Your task to perform on an android device: open the mobile data screen to see how much data has been used Image 0: 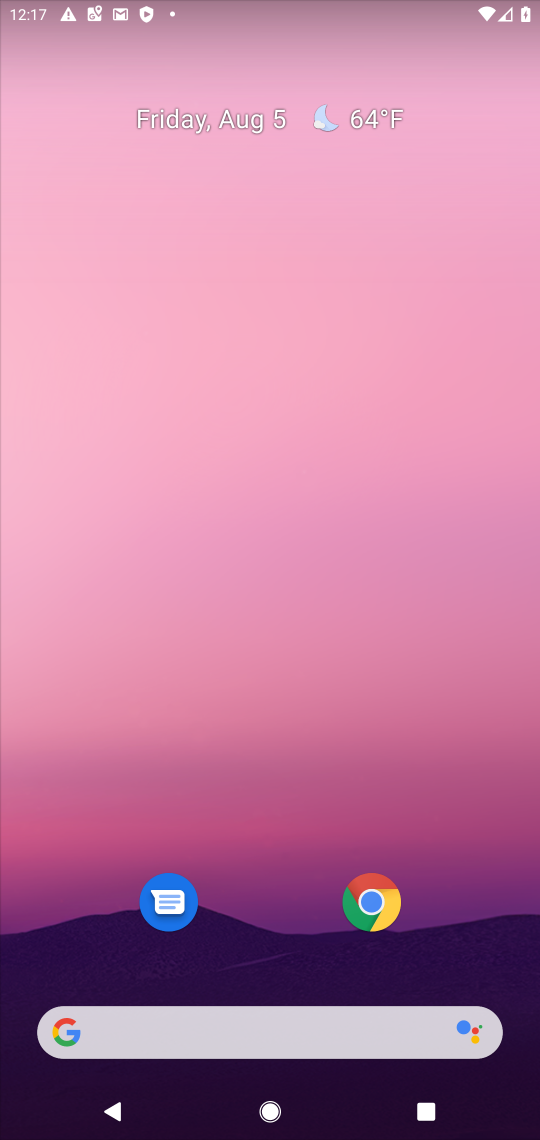
Step 0: drag from (280, 881) to (291, 259)
Your task to perform on an android device: open the mobile data screen to see how much data has been used Image 1: 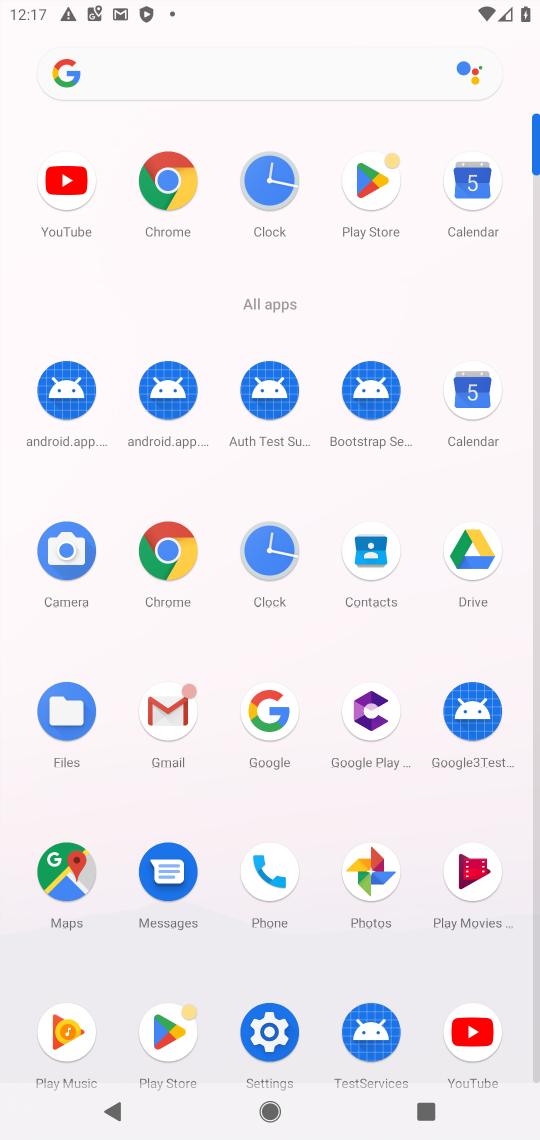
Step 1: click (263, 1031)
Your task to perform on an android device: open the mobile data screen to see how much data has been used Image 2: 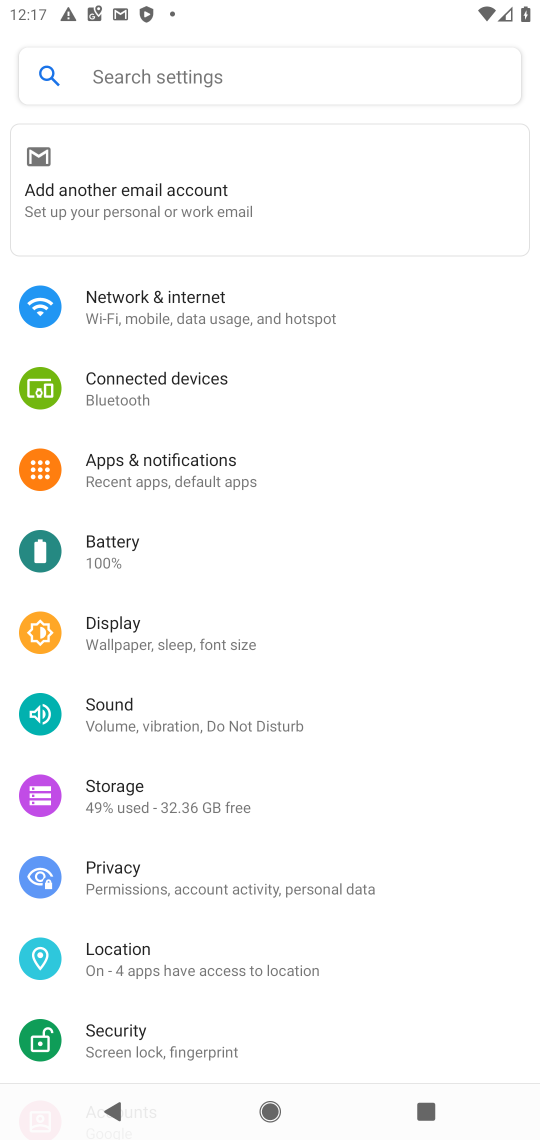
Step 2: click (224, 301)
Your task to perform on an android device: open the mobile data screen to see how much data has been used Image 3: 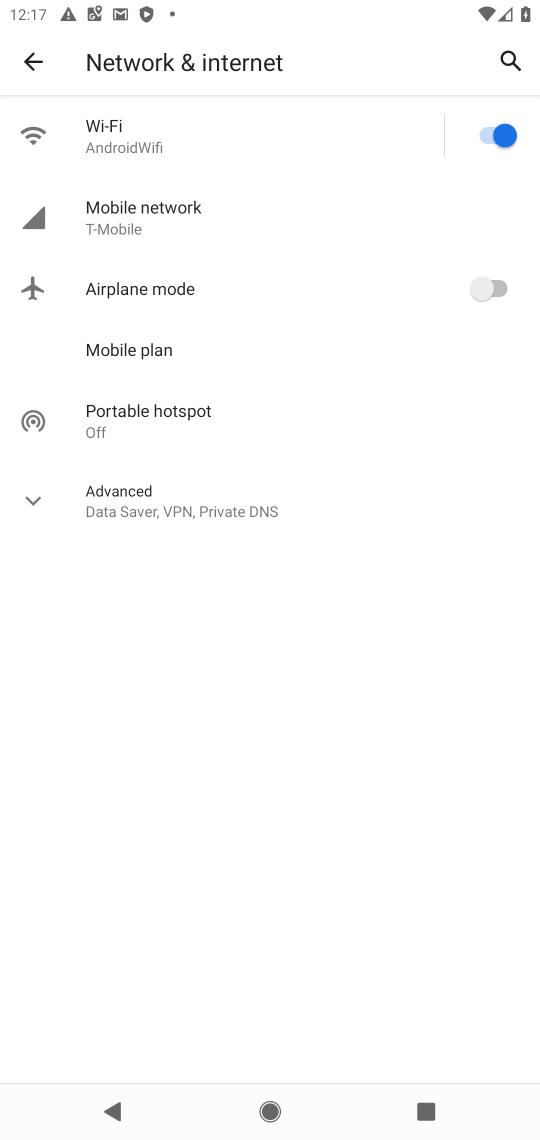
Step 3: click (201, 214)
Your task to perform on an android device: open the mobile data screen to see how much data has been used Image 4: 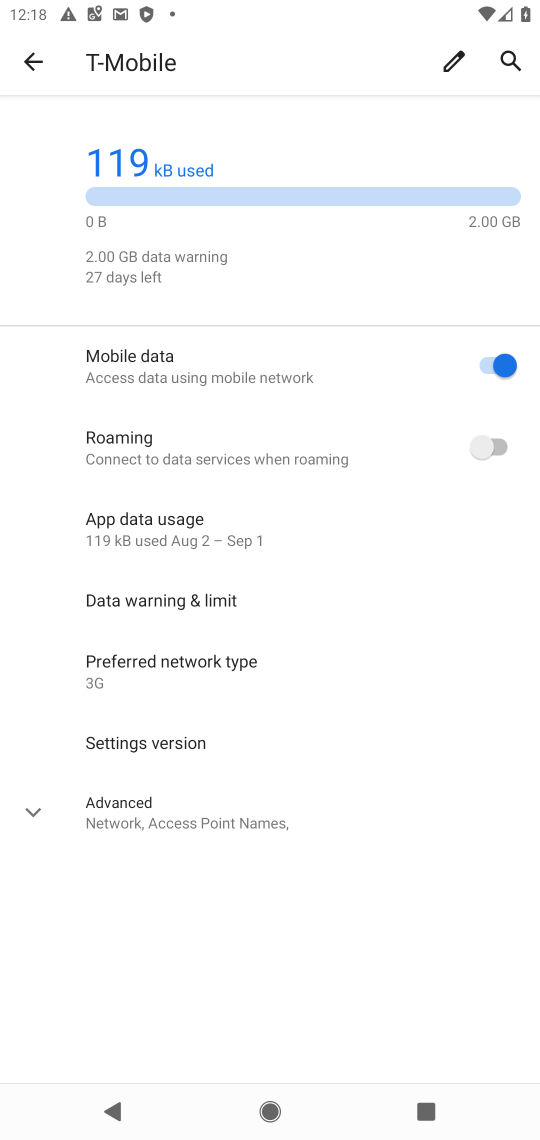
Step 4: click (191, 530)
Your task to perform on an android device: open the mobile data screen to see how much data has been used Image 5: 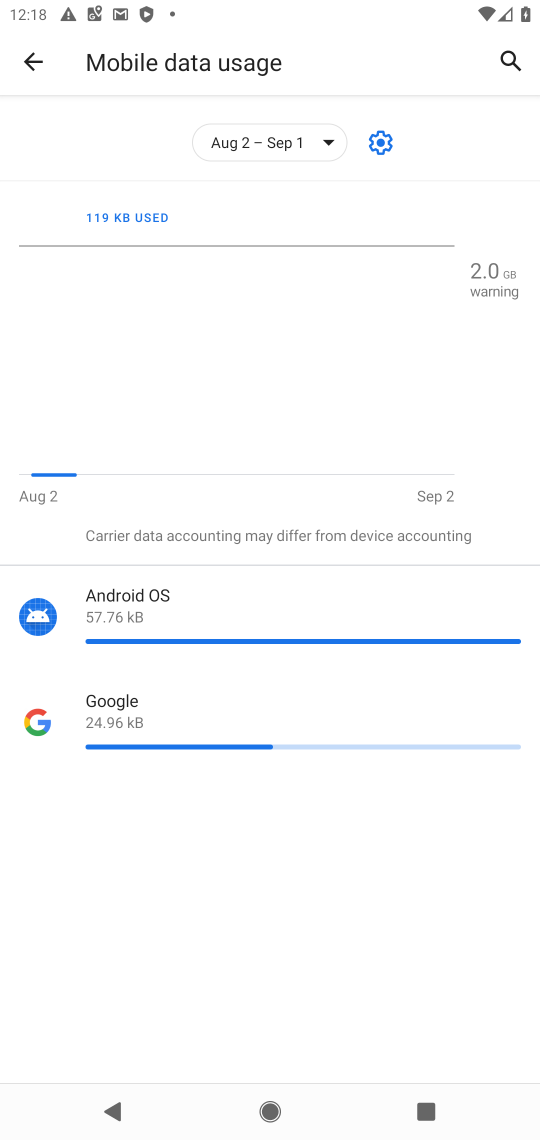
Step 5: task complete